Your task to perform on an android device: install app "PlayWell" Image 0: 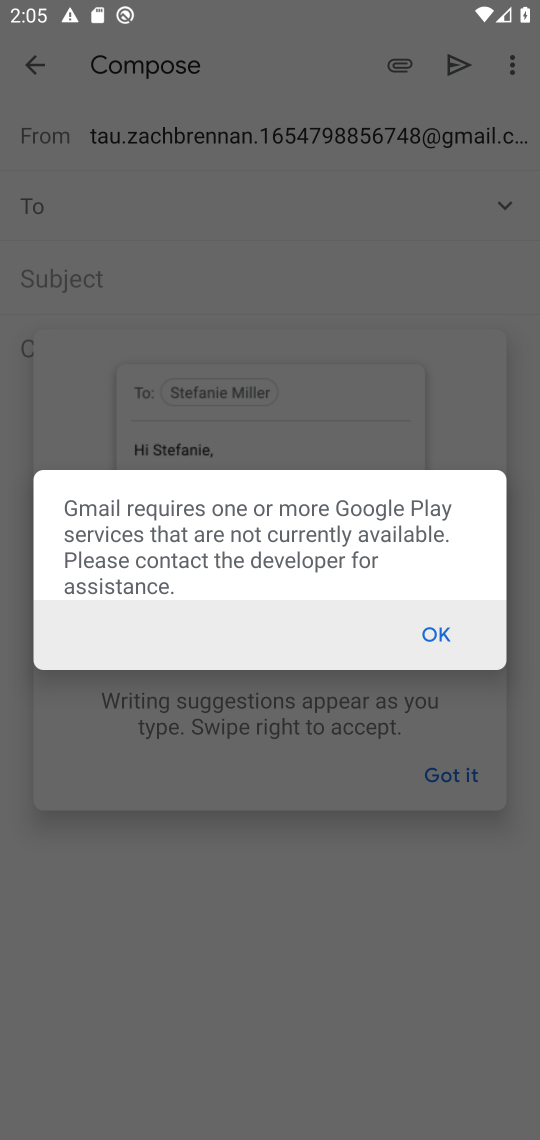
Step 0: press home button
Your task to perform on an android device: install app "PlayWell" Image 1: 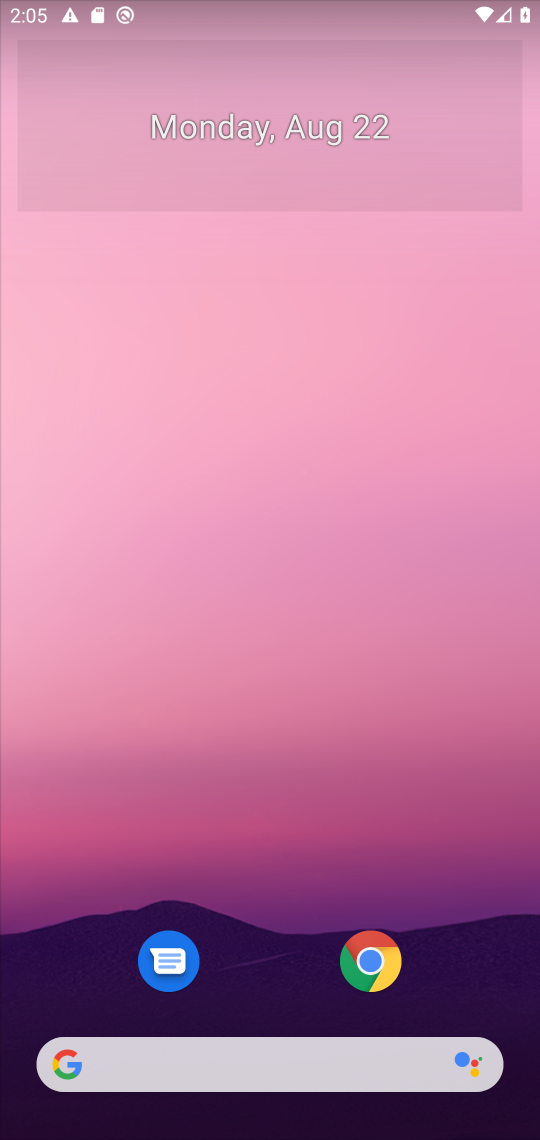
Step 1: drag from (469, 955) to (538, 195)
Your task to perform on an android device: install app "PlayWell" Image 2: 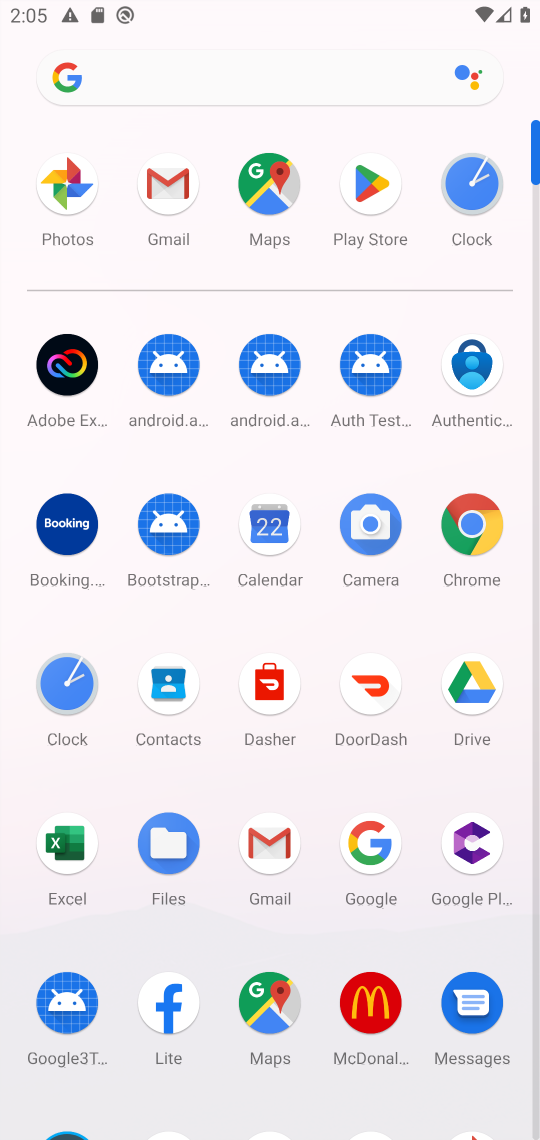
Step 2: click (375, 173)
Your task to perform on an android device: install app "PlayWell" Image 3: 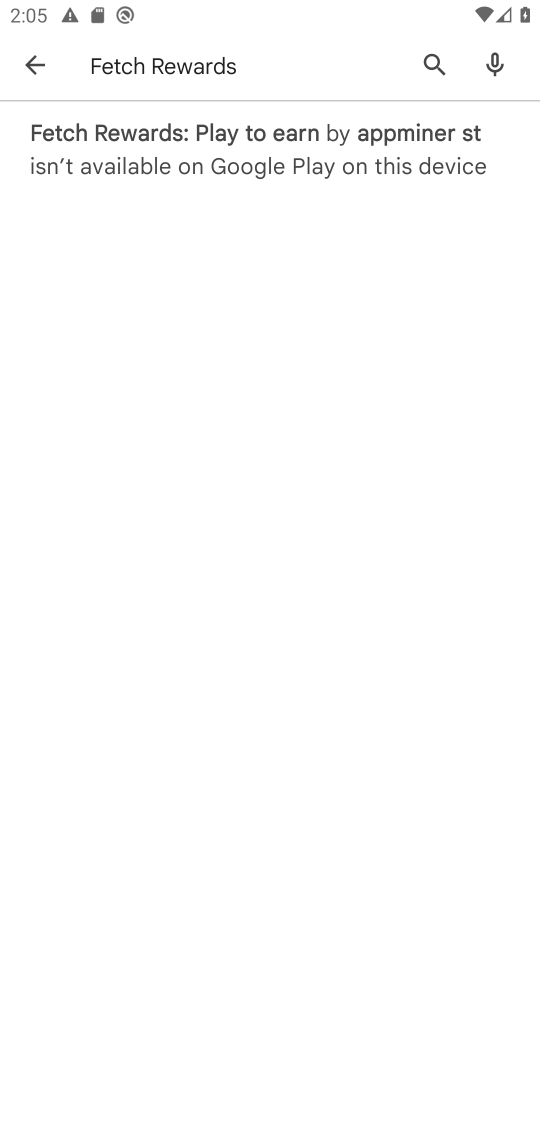
Step 3: press back button
Your task to perform on an android device: install app "PlayWell" Image 4: 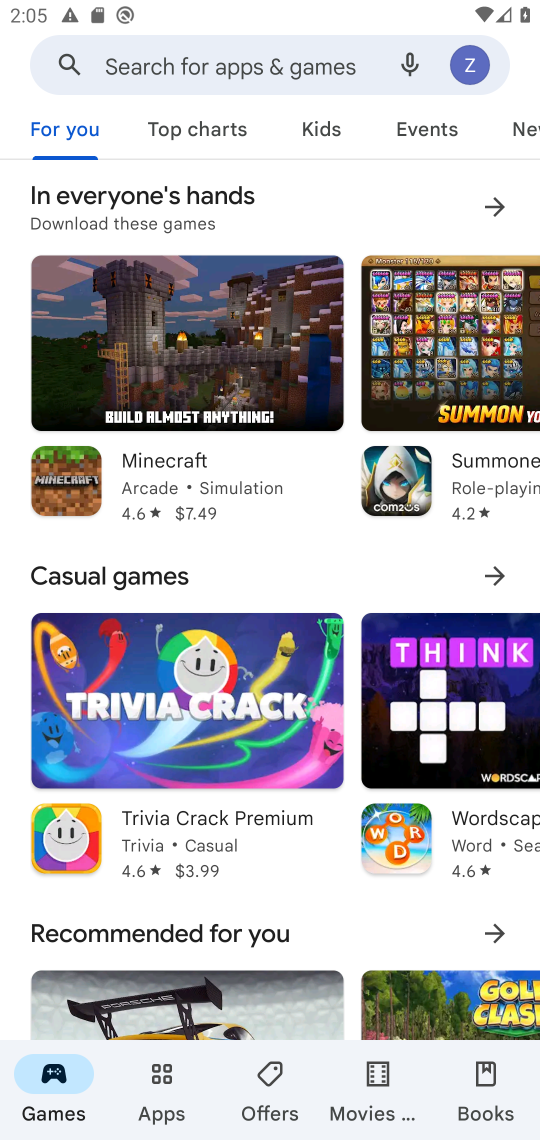
Step 4: click (299, 58)
Your task to perform on an android device: install app "PlayWell" Image 5: 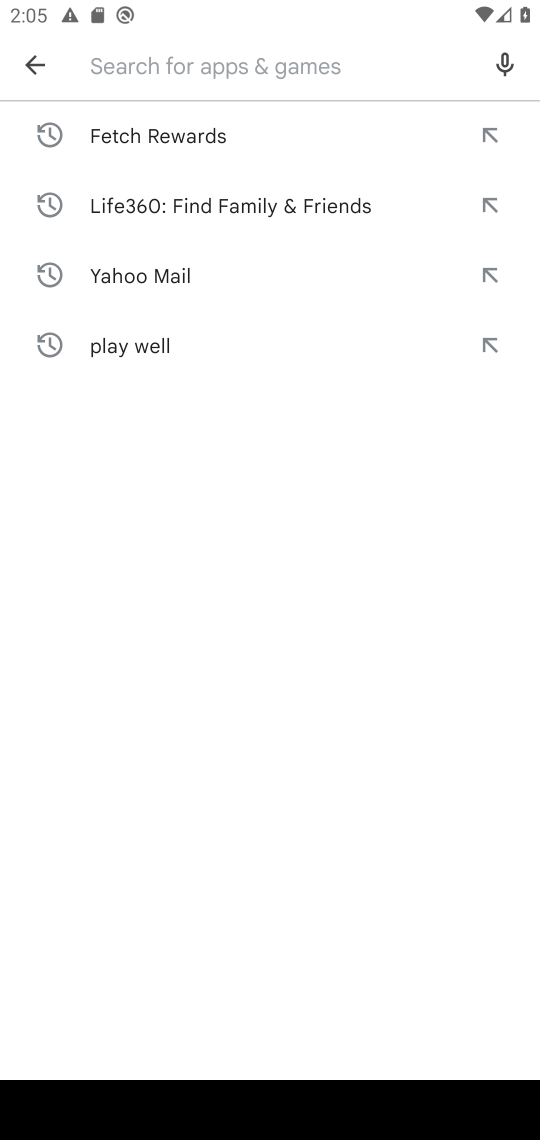
Step 5: press enter
Your task to perform on an android device: install app "PlayWell" Image 6: 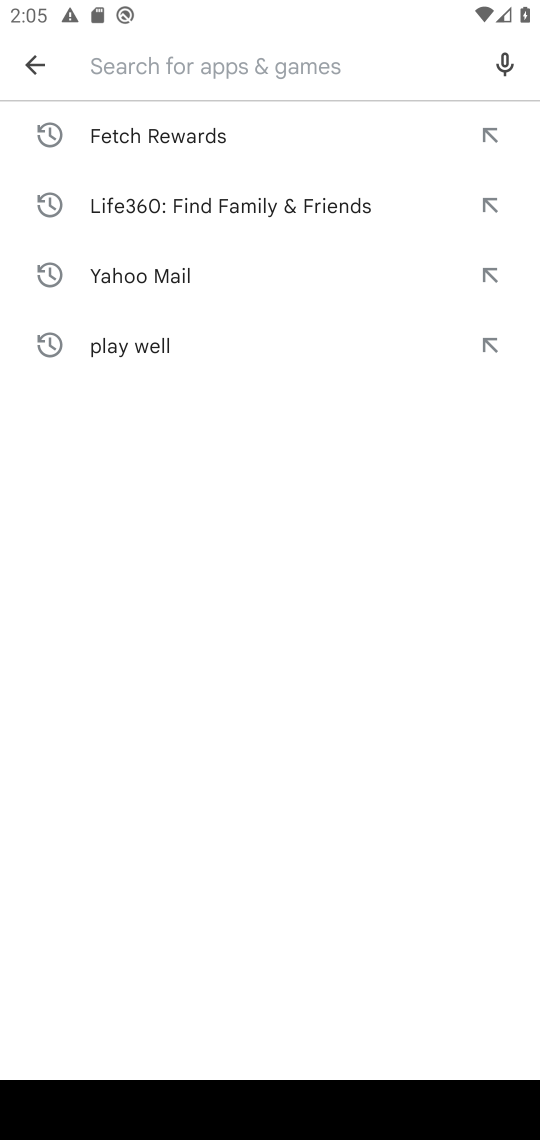
Step 6: type "play well"
Your task to perform on an android device: install app "PlayWell" Image 7: 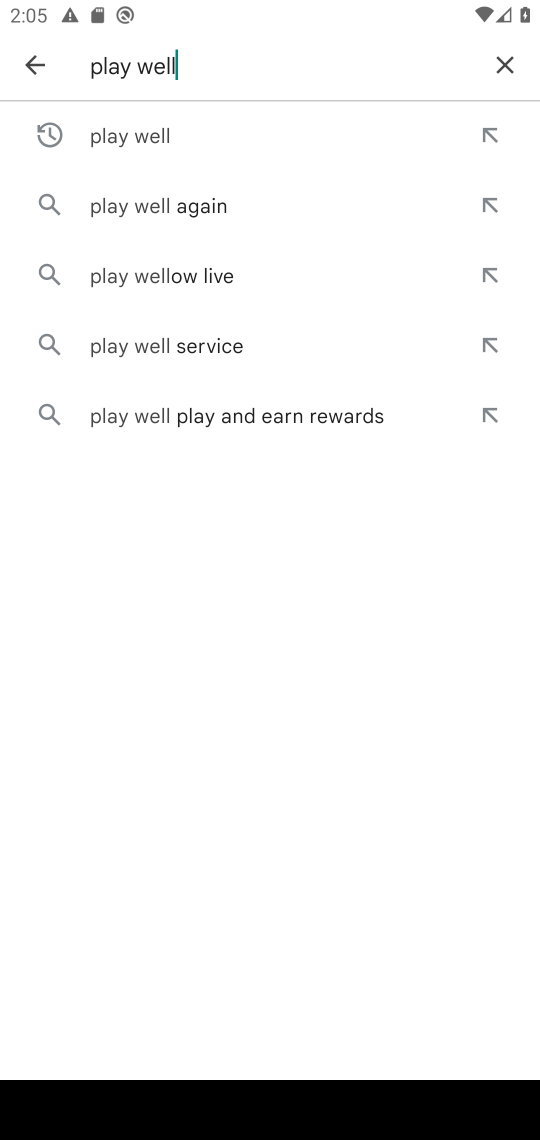
Step 7: click (211, 127)
Your task to perform on an android device: install app "PlayWell" Image 8: 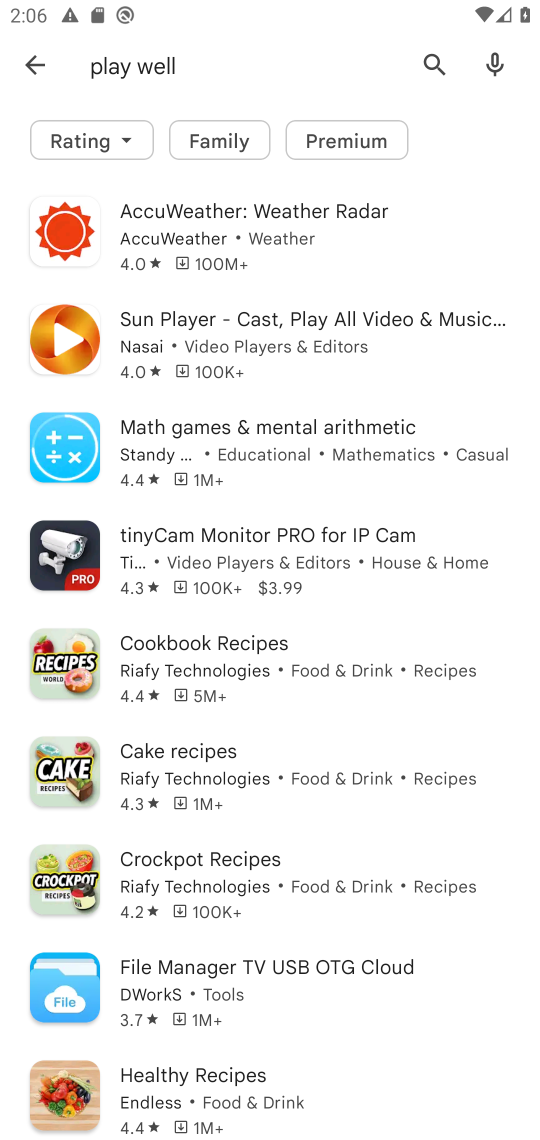
Step 8: task complete